Your task to perform on an android device: Go to Wikipedia Image 0: 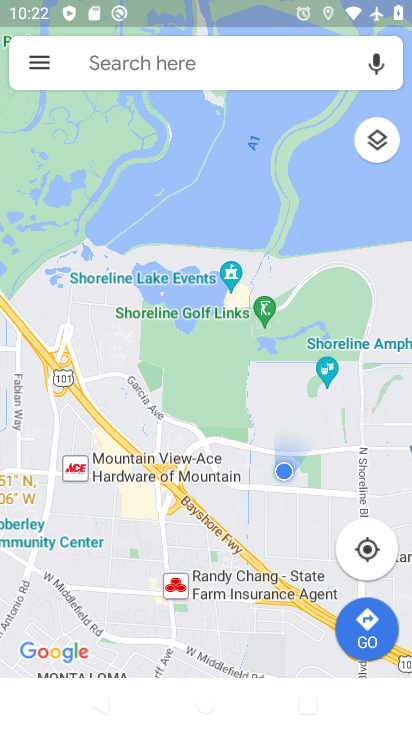
Step 0: press back button
Your task to perform on an android device: Go to Wikipedia Image 1: 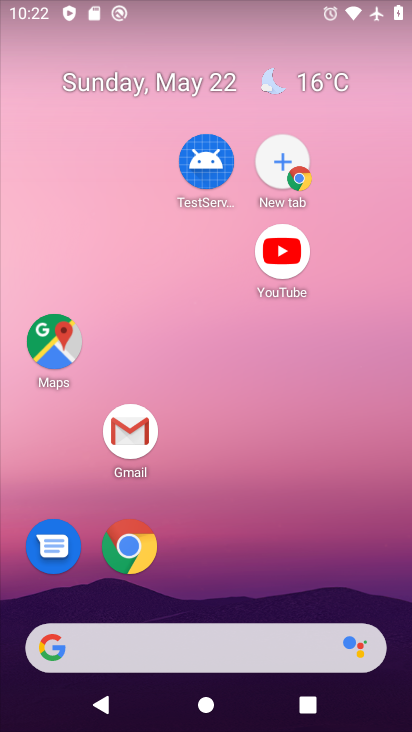
Step 1: drag from (248, 676) to (181, 163)
Your task to perform on an android device: Go to Wikipedia Image 2: 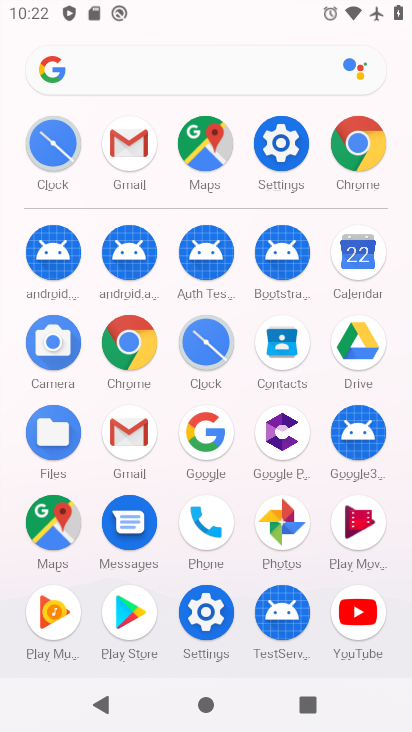
Step 2: click (357, 138)
Your task to perform on an android device: Go to Wikipedia Image 3: 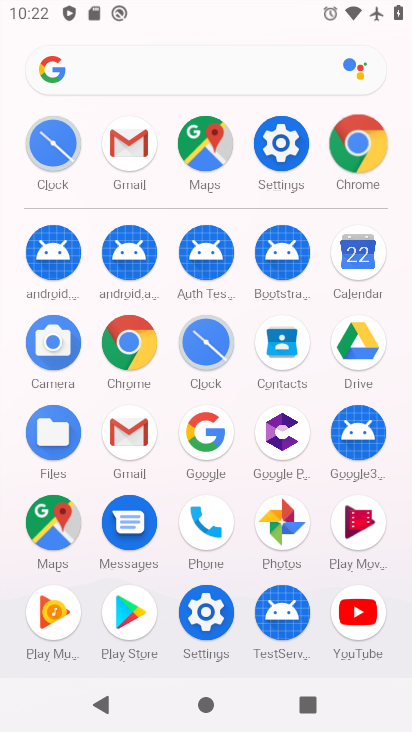
Step 3: click (357, 138)
Your task to perform on an android device: Go to Wikipedia Image 4: 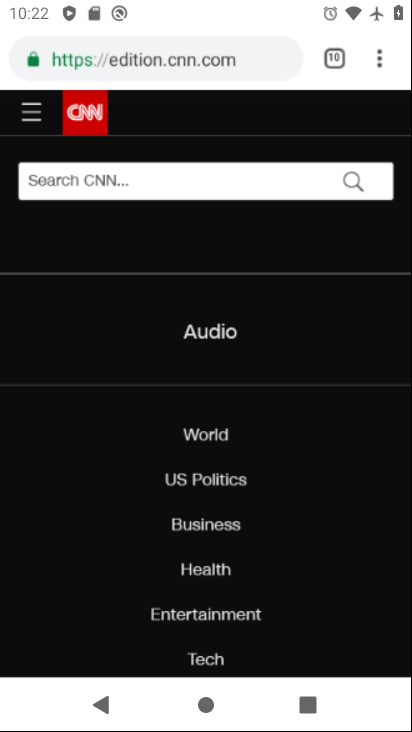
Step 4: click (358, 140)
Your task to perform on an android device: Go to Wikipedia Image 5: 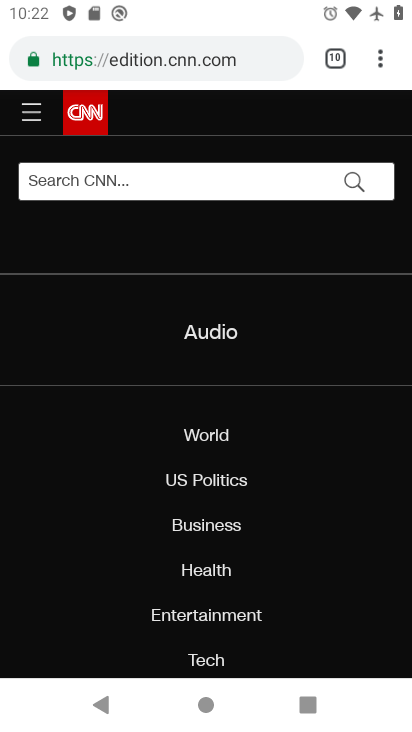
Step 5: click (381, 67)
Your task to perform on an android device: Go to Wikipedia Image 6: 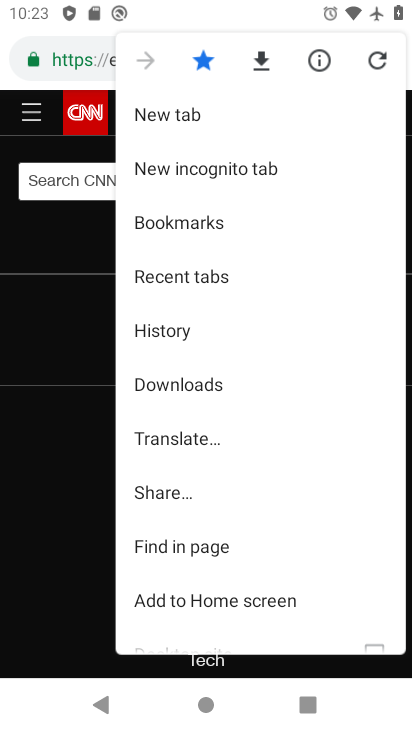
Step 6: click (175, 111)
Your task to perform on an android device: Go to Wikipedia Image 7: 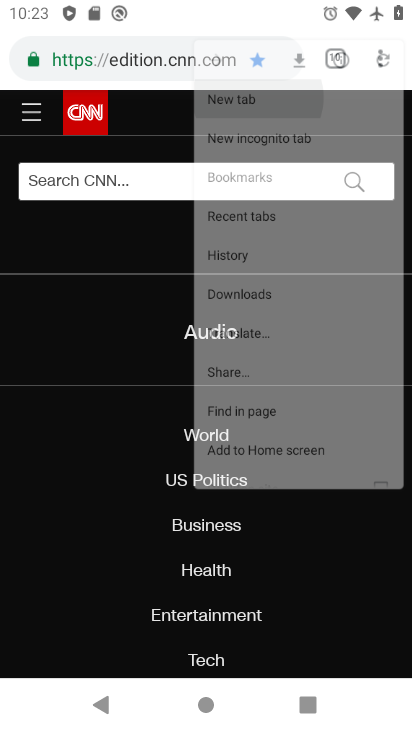
Step 7: click (175, 110)
Your task to perform on an android device: Go to Wikipedia Image 8: 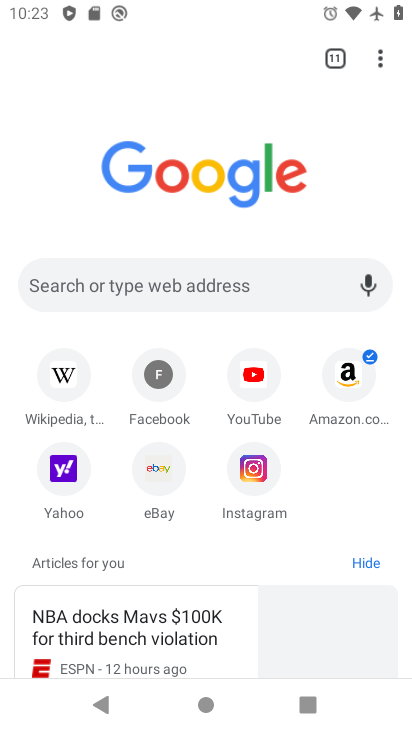
Step 8: click (186, 113)
Your task to perform on an android device: Go to Wikipedia Image 9: 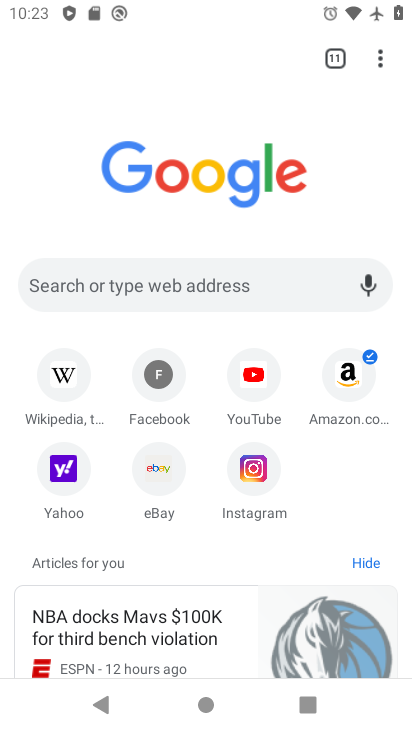
Step 9: click (186, 113)
Your task to perform on an android device: Go to Wikipedia Image 10: 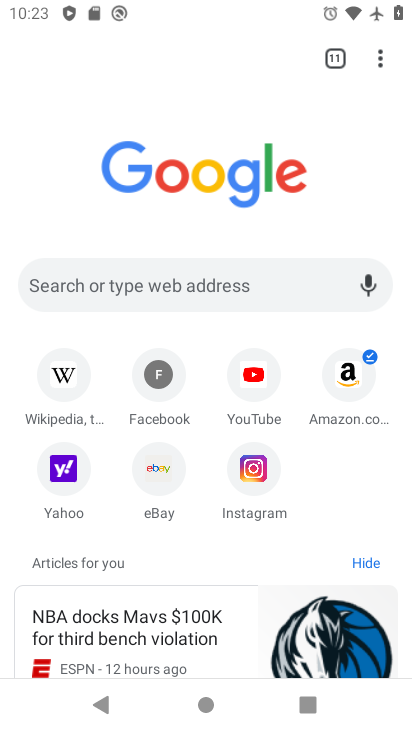
Step 10: click (83, 387)
Your task to perform on an android device: Go to Wikipedia Image 11: 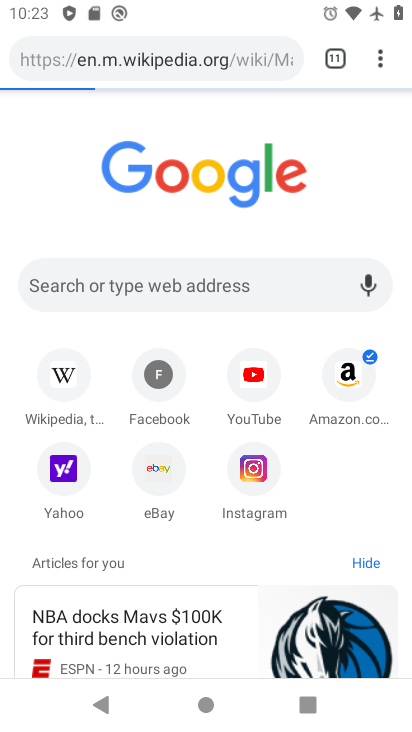
Step 11: click (82, 386)
Your task to perform on an android device: Go to Wikipedia Image 12: 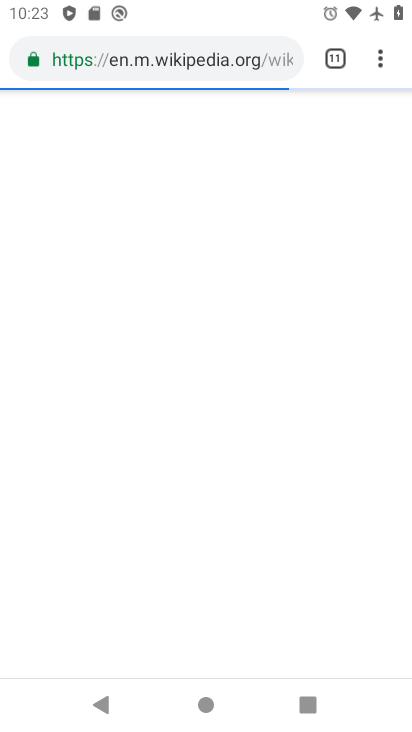
Step 12: click (84, 385)
Your task to perform on an android device: Go to Wikipedia Image 13: 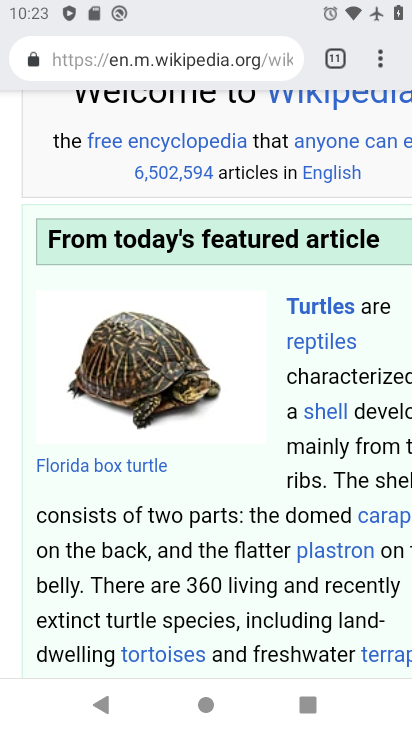
Step 13: task complete